Your task to perform on an android device: add a contact Image 0: 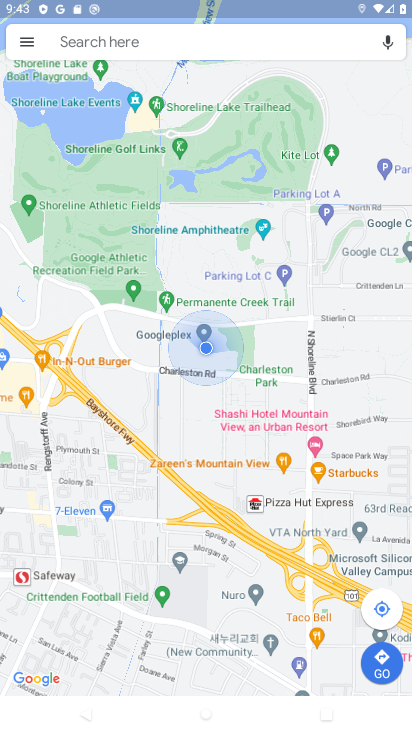
Step 0: press home button
Your task to perform on an android device: add a contact Image 1: 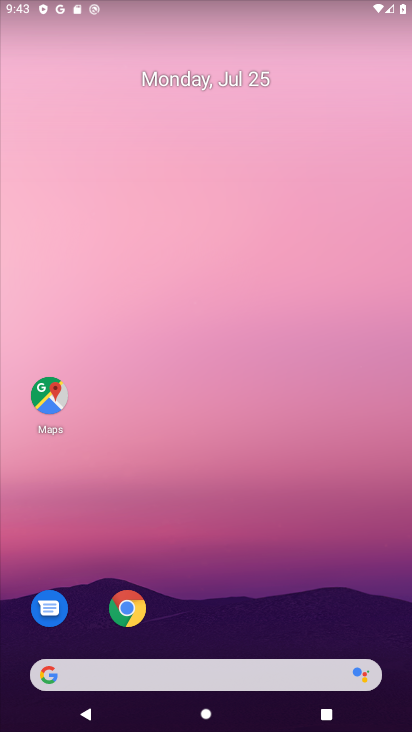
Step 1: drag from (243, 259) to (297, 1)
Your task to perform on an android device: add a contact Image 2: 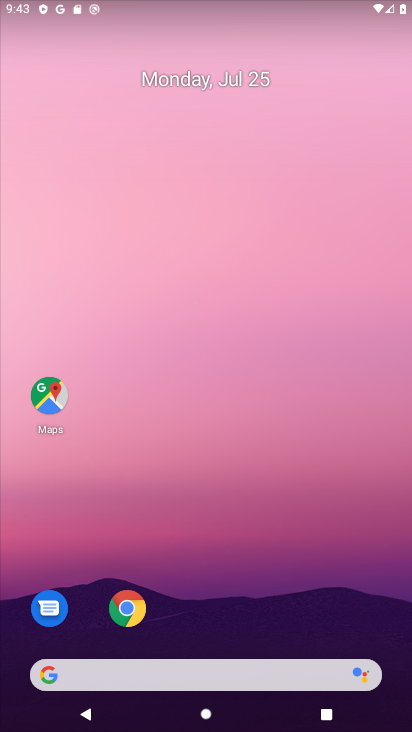
Step 2: drag from (214, 672) to (221, 2)
Your task to perform on an android device: add a contact Image 3: 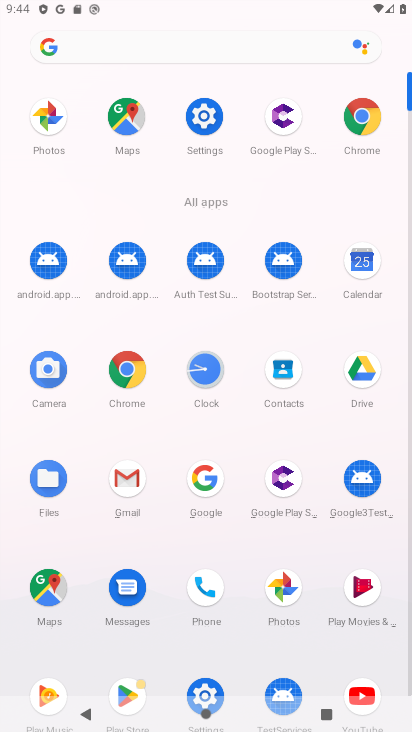
Step 3: click (276, 384)
Your task to perform on an android device: add a contact Image 4: 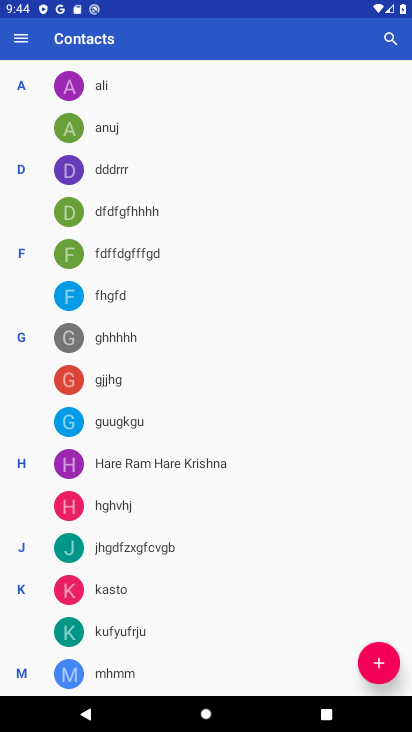
Step 4: click (374, 670)
Your task to perform on an android device: add a contact Image 5: 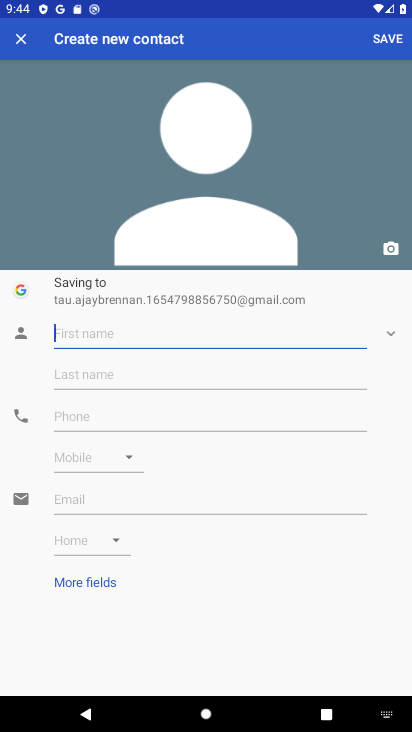
Step 5: type "ghjkjhgfd"
Your task to perform on an android device: add a contact Image 6: 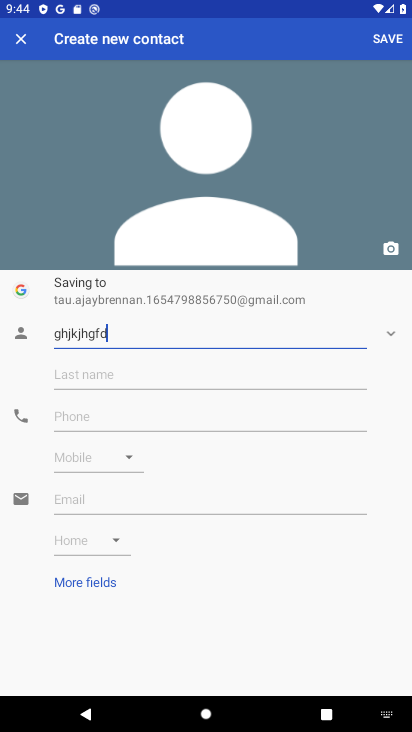
Step 6: type ""
Your task to perform on an android device: add a contact Image 7: 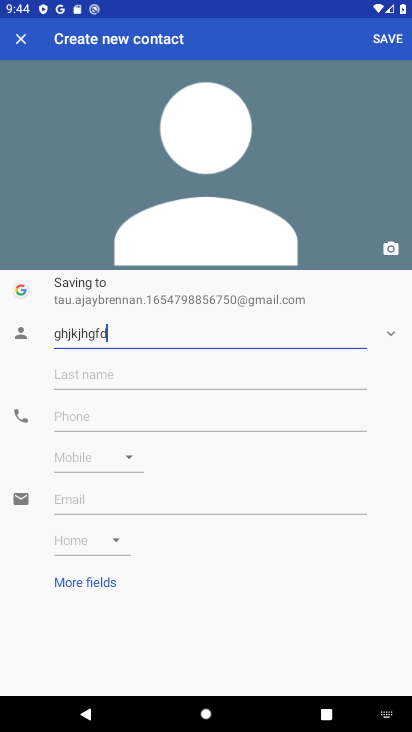
Step 7: click (194, 422)
Your task to perform on an android device: add a contact Image 8: 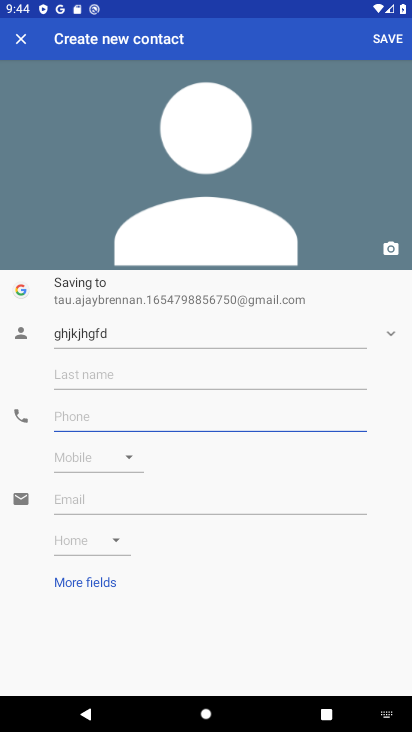
Step 8: type "98765453"
Your task to perform on an android device: add a contact Image 9: 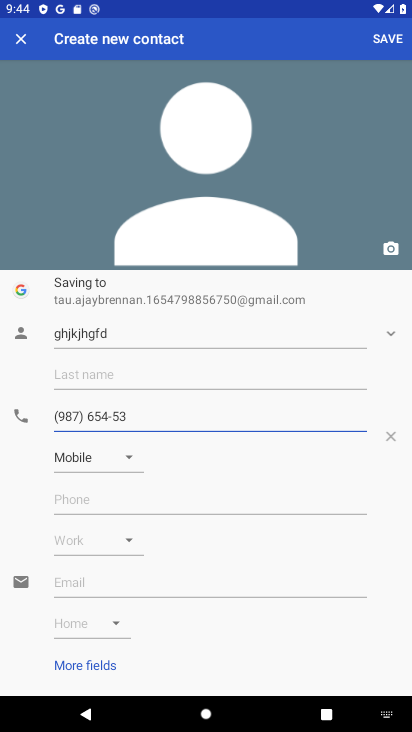
Step 9: click (393, 39)
Your task to perform on an android device: add a contact Image 10: 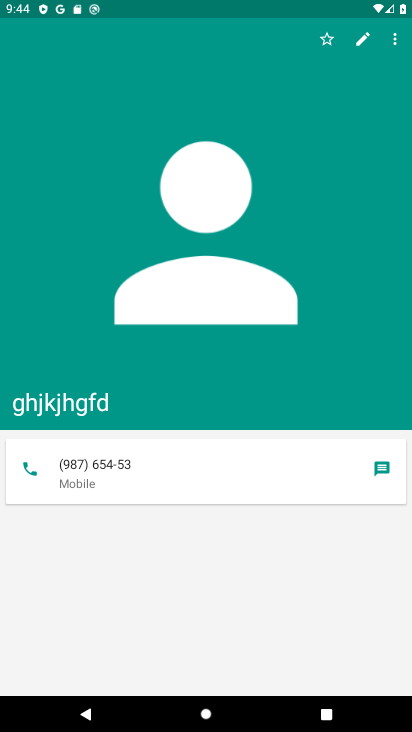
Step 10: task complete